Your task to perform on an android device: open a bookmark in the chrome app Image 0: 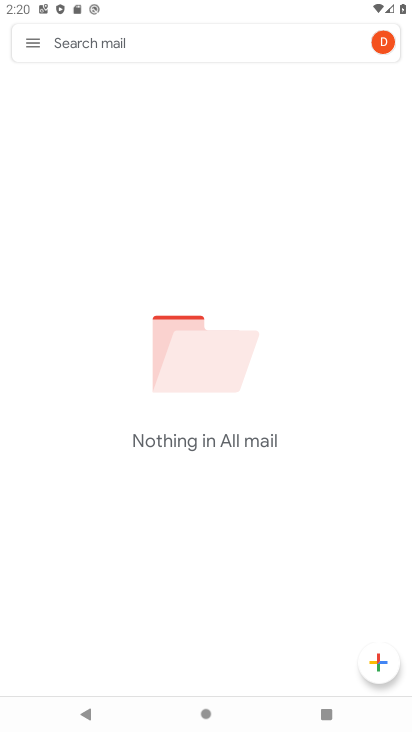
Step 0: press home button
Your task to perform on an android device: open a bookmark in the chrome app Image 1: 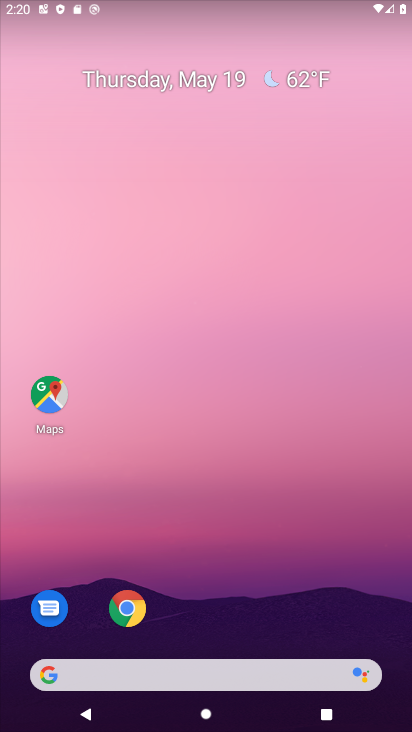
Step 1: click (133, 603)
Your task to perform on an android device: open a bookmark in the chrome app Image 2: 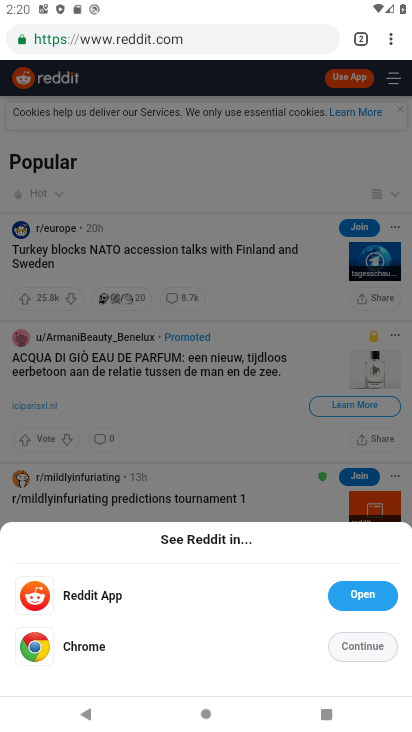
Step 2: click (112, 649)
Your task to perform on an android device: open a bookmark in the chrome app Image 3: 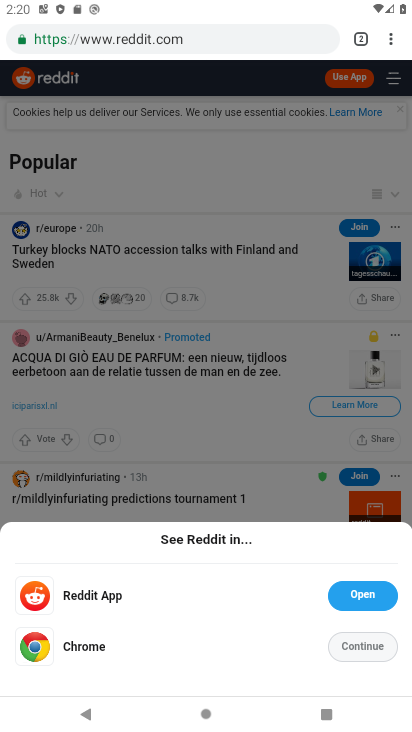
Step 3: click (361, 649)
Your task to perform on an android device: open a bookmark in the chrome app Image 4: 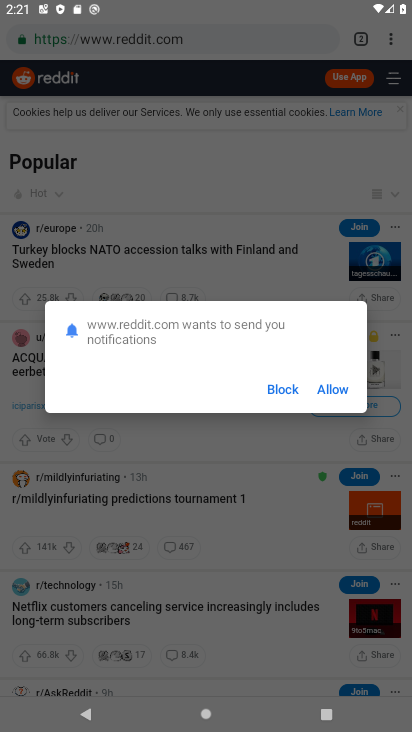
Step 4: click (329, 394)
Your task to perform on an android device: open a bookmark in the chrome app Image 5: 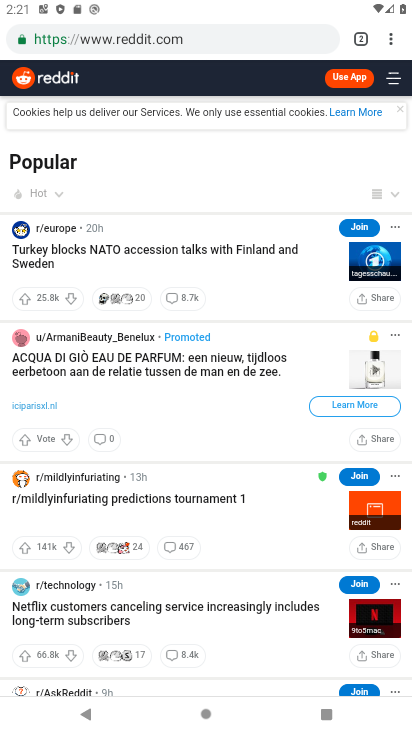
Step 5: click (395, 41)
Your task to perform on an android device: open a bookmark in the chrome app Image 6: 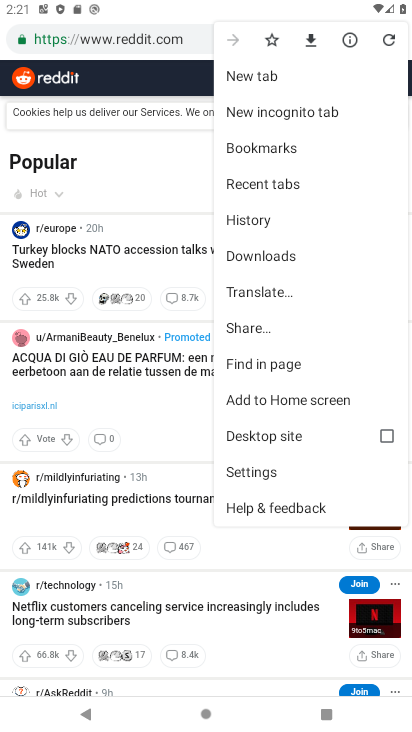
Step 6: click (294, 136)
Your task to perform on an android device: open a bookmark in the chrome app Image 7: 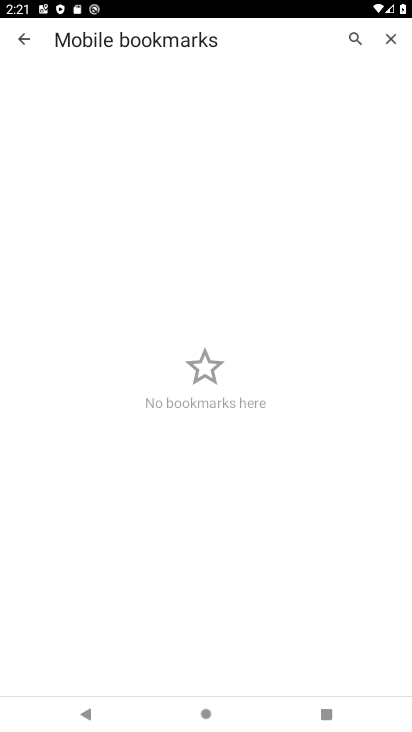
Step 7: task complete